Your task to perform on an android device: Open Maps and search for coffee Image 0: 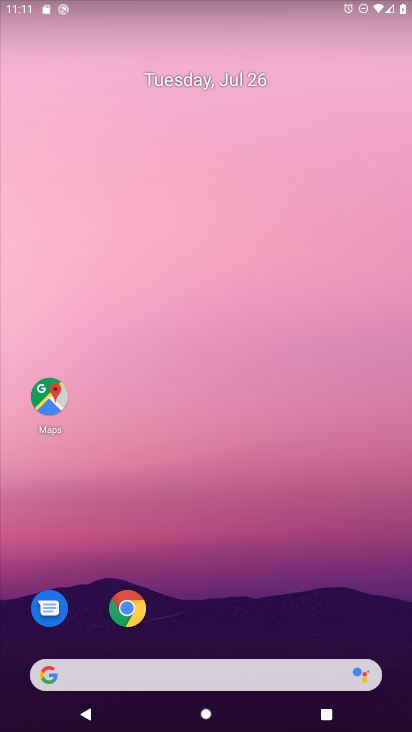
Step 0: drag from (268, 518) to (265, 61)
Your task to perform on an android device: Open Maps and search for coffee Image 1: 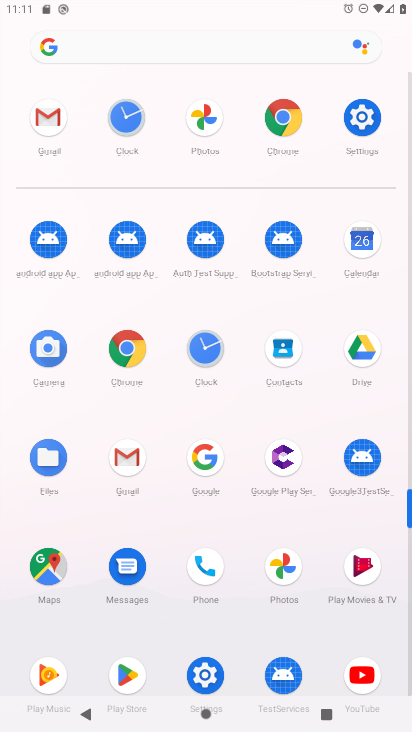
Step 1: click (54, 576)
Your task to perform on an android device: Open Maps and search for coffee Image 2: 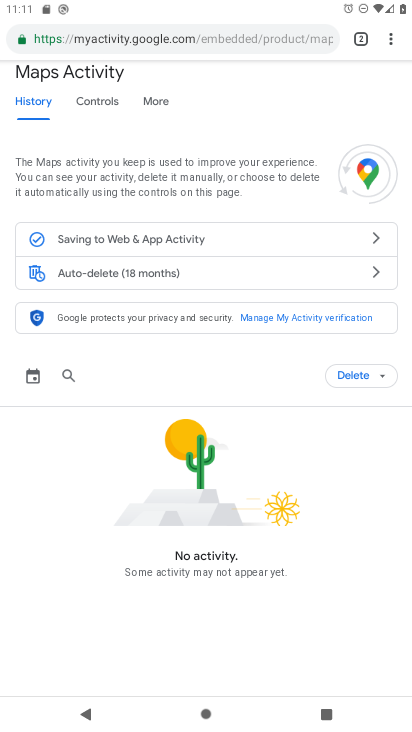
Step 2: press back button
Your task to perform on an android device: Open Maps and search for coffee Image 3: 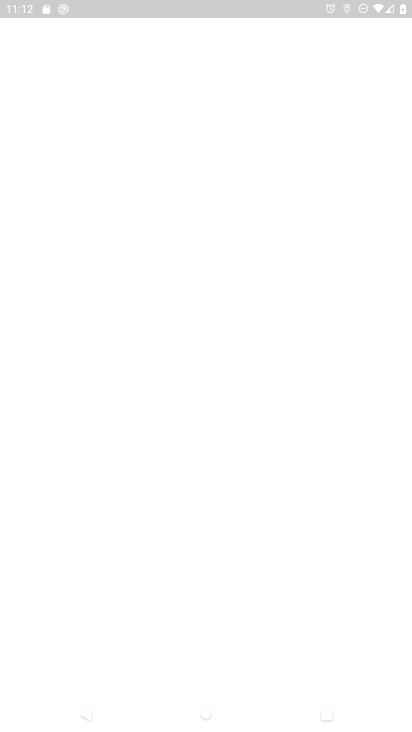
Step 3: press home button
Your task to perform on an android device: Open Maps and search for coffee Image 4: 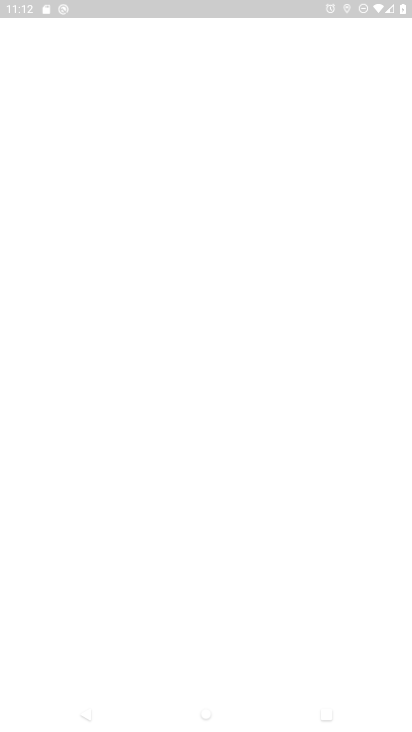
Step 4: press home button
Your task to perform on an android device: Open Maps and search for coffee Image 5: 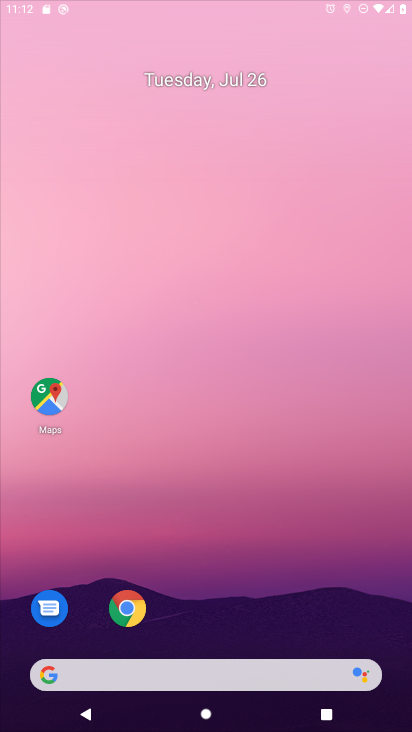
Step 5: press home button
Your task to perform on an android device: Open Maps and search for coffee Image 6: 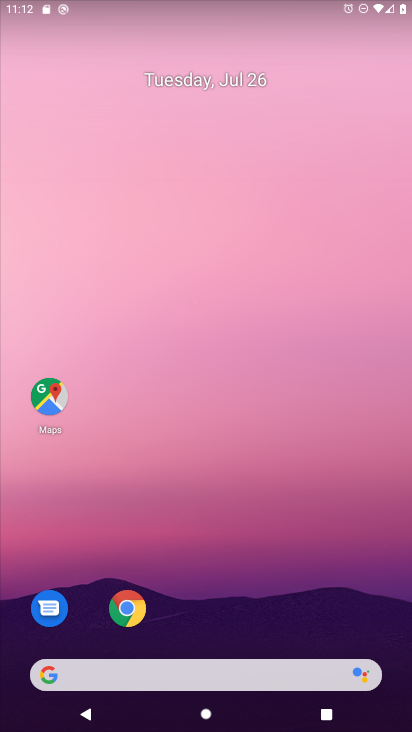
Step 6: drag from (258, 618) to (272, 36)
Your task to perform on an android device: Open Maps and search for coffee Image 7: 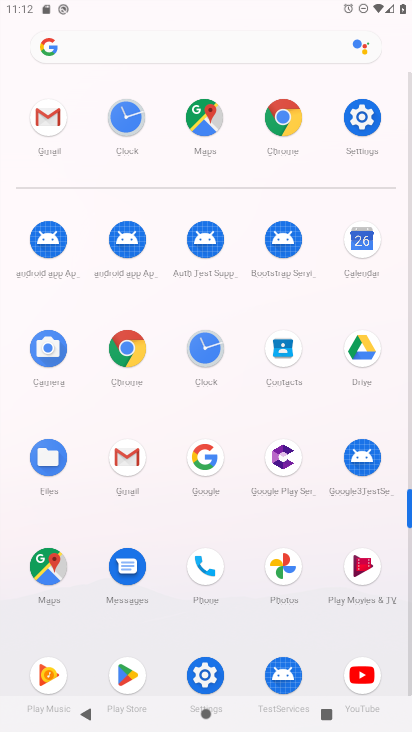
Step 7: click (203, 118)
Your task to perform on an android device: Open Maps and search for coffee Image 8: 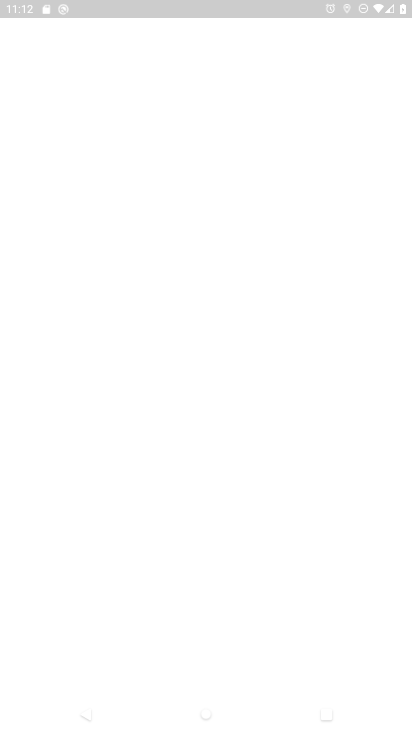
Step 8: task complete